Your task to perform on an android device: manage bookmarks in the chrome app Image 0: 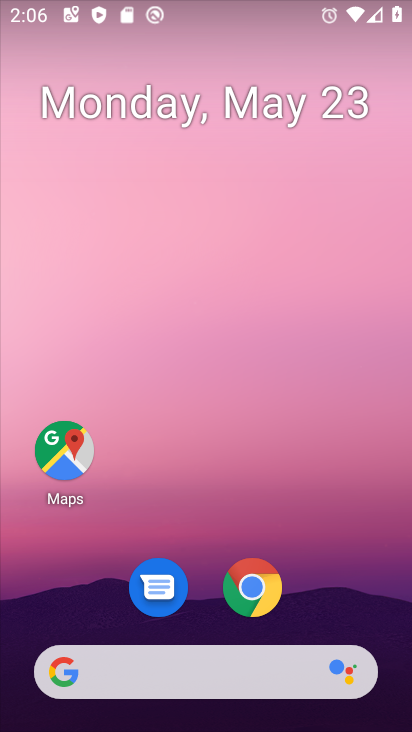
Step 0: click (259, 604)
Your task to perform on an android device: manage bookmarks in the chrome app Image 1: 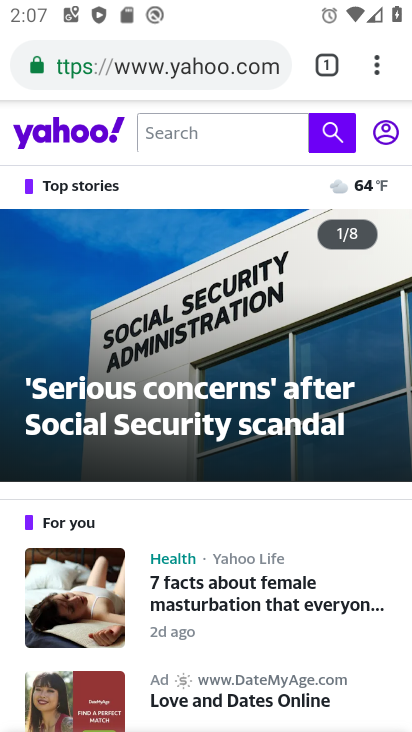
Step 1: click (377, 60)
Your task to perform on an android device: manage bookmarks in the chrome app Image 2: 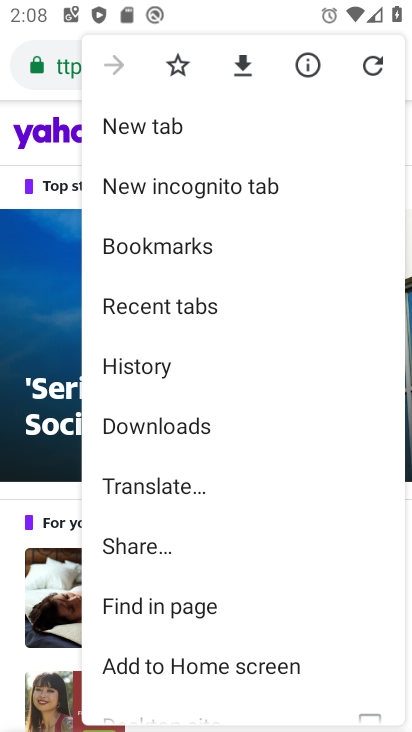
Step 2: drag from (161, 531) to (191, 332)
Your task to perform on an android device: manage bookmarks in the chrome app Image 3: 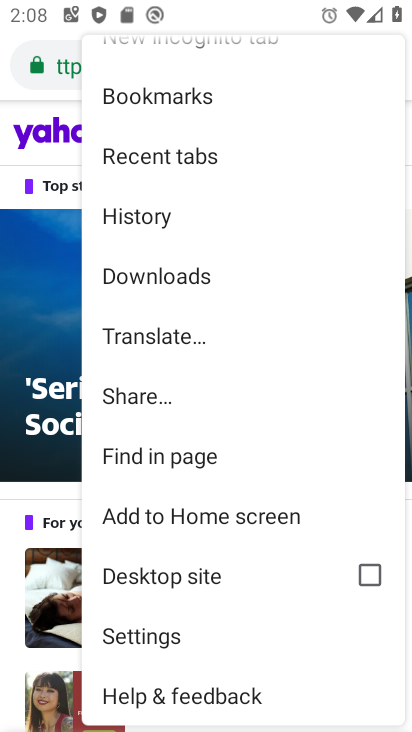
Step 3: click (212, 113)
Your task to perform on an android device: manage bookmarks in the chrome app Image 4: 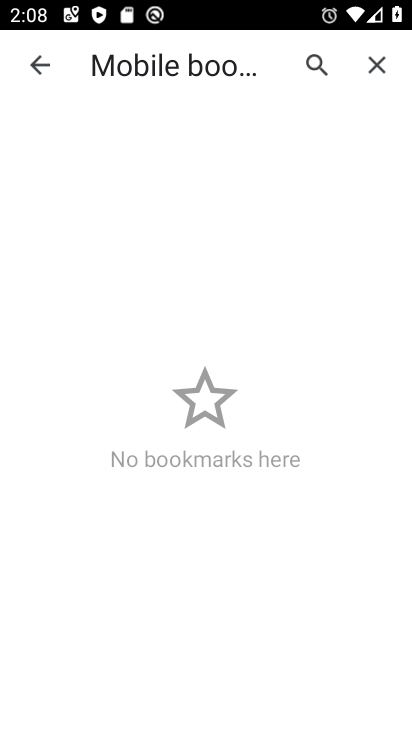
Step 4: task complete